Your task to perform on an android device: add a contact in the contacts app Image 0: 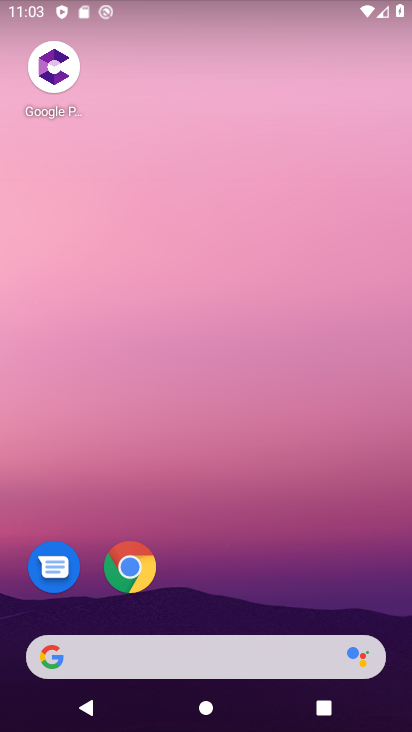
Step 0: drag from (369, 603) to (310, 97)
Your task to perform on an android device: add a contact in the contacts app Image 1: 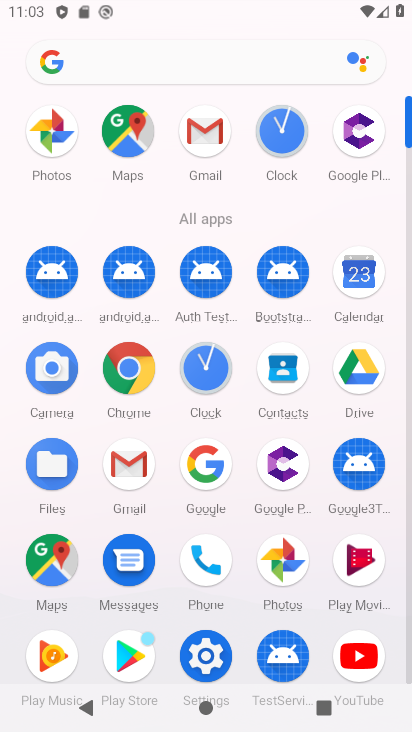
Step 1: click (282, 384)
Your task to perform on an android device: add a contact in the contacts app Image 2: 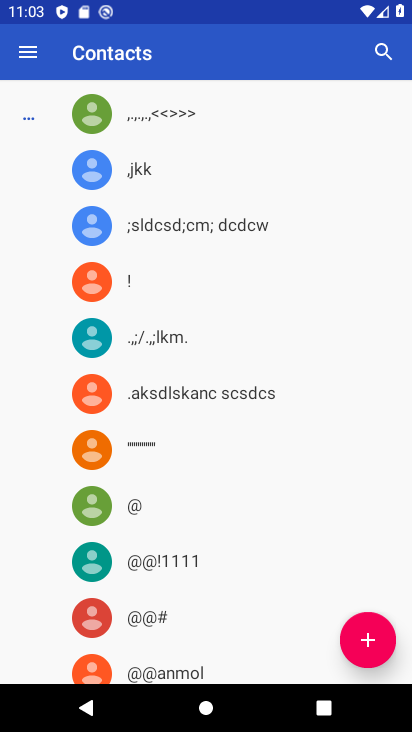
Step 2: click (361, 634)
Your task to perform on an android device: add a contact in the contacts app Image 3: 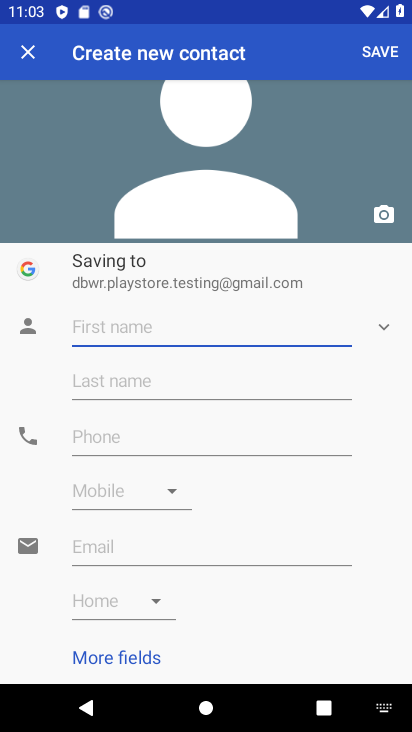
Step 3: click (199, 327)
Your task to perform on an android device: add a contact in the contacts app Image 4: 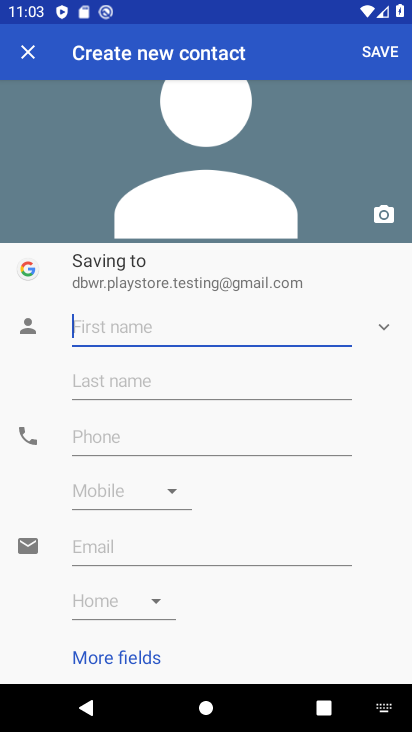
Step 4: type "pro"
Your task to perform on an android device: add a contact in the contacts app Image 5: 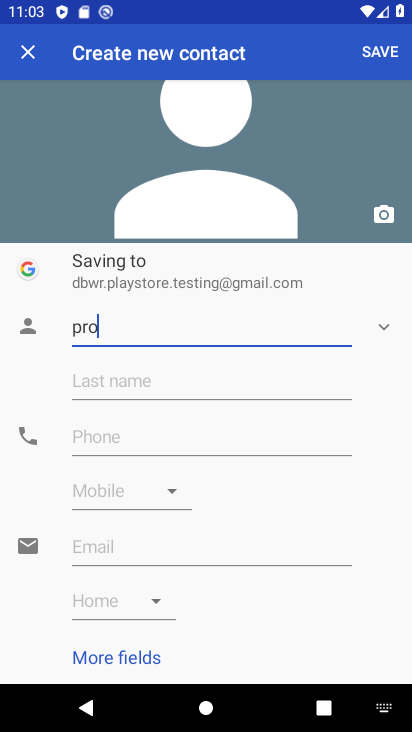
Step 5: click (178, 430)
Your task to perform on an android device: add a contact in the contacts app Image 6: 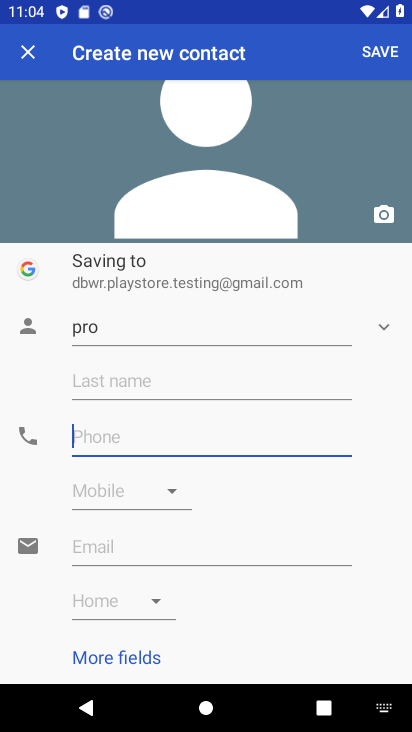
Step 6: type "019238092012"
Your task to perform on an android device: add a contact in the contacts app Image 7: 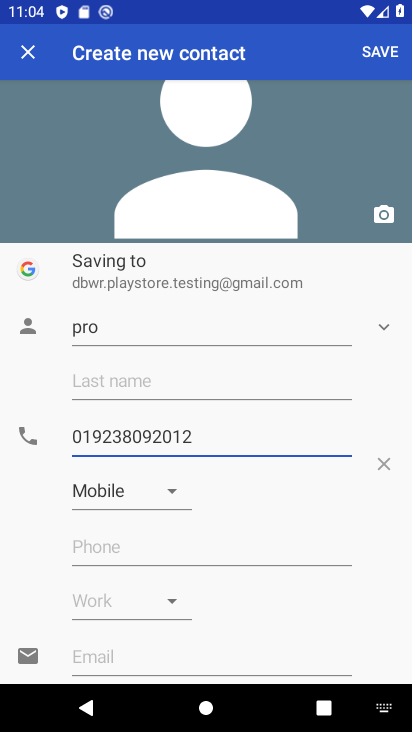
Step 7: task complete